Your task to perform on an android device: Open settings Image 0: 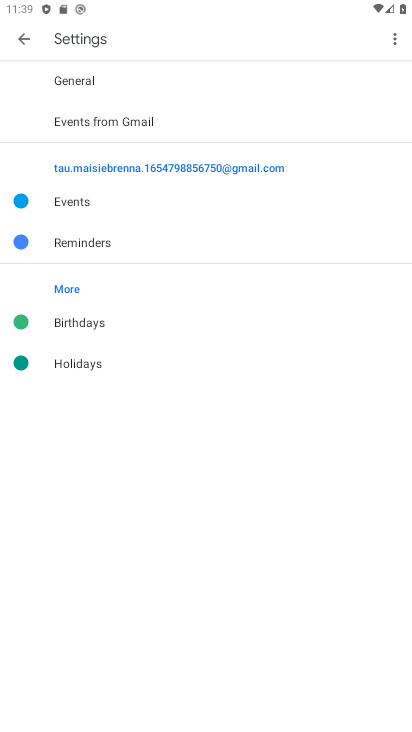
Step 0: press home button
Your task to perform on an android device: Open settings Image 1: 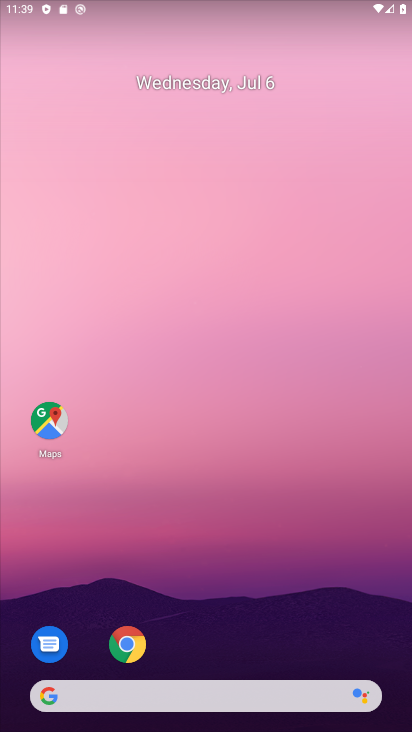
Step 1: drag from (197, 690) to (178, 93)
Your task to perform on an android device: Open settings Image 2: 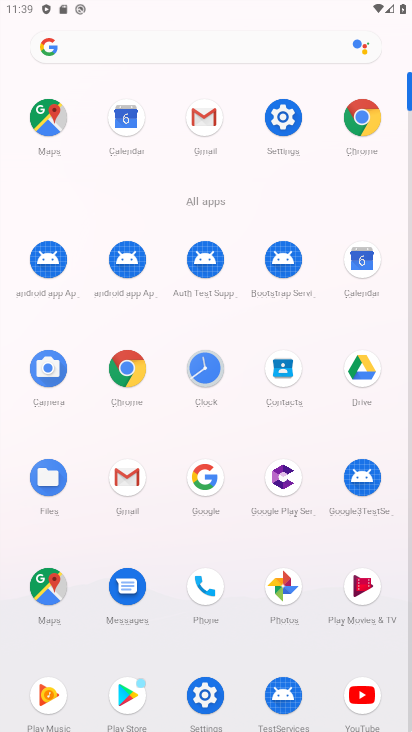
Step 2: click (266, 135)
Your task to perform on an android device: Open settings Image 3: 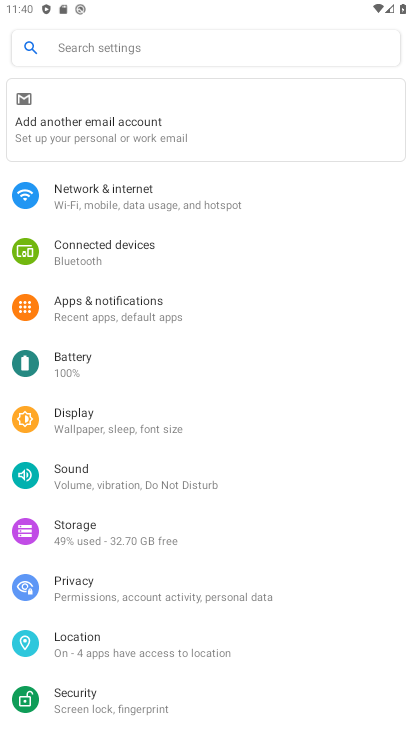
Step 3: task complete